Your task to perform on an android device: toggle data saver in the chrome app Image 0: 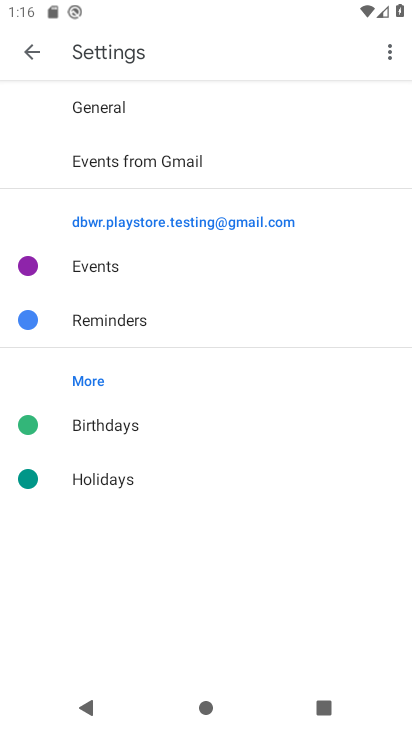
Step 0: press home button
Your task to perform on an android device: toggle data saver in the chrome app Image 1: 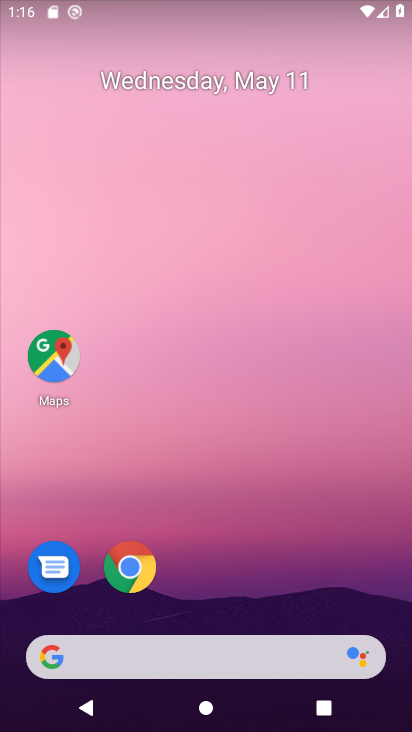
Step 1: click (112, 570)
Your task to perform on an android device: toggle data saver in the chrome app Image 2: 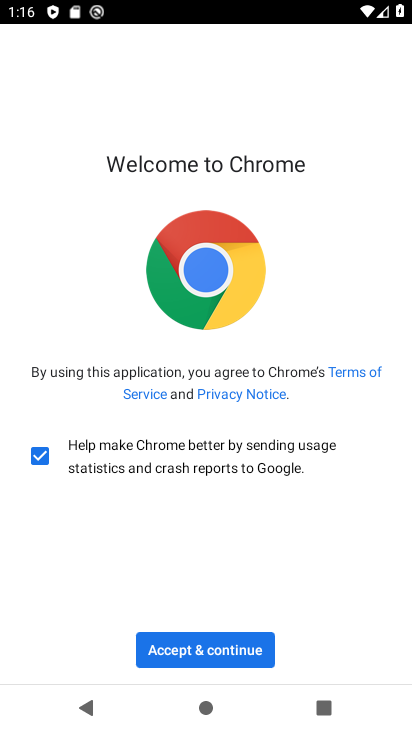
Step 2: click (223, 643)
Your task to perform on an android device: toggle data saver in the chrome app Image 3: 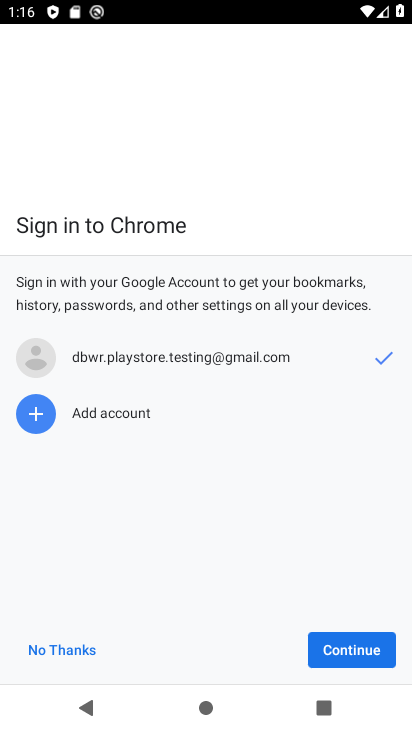
Step 3: click (339, 650)
Your task to perform on an android device: toggle data saver in the chrome app Image 4: 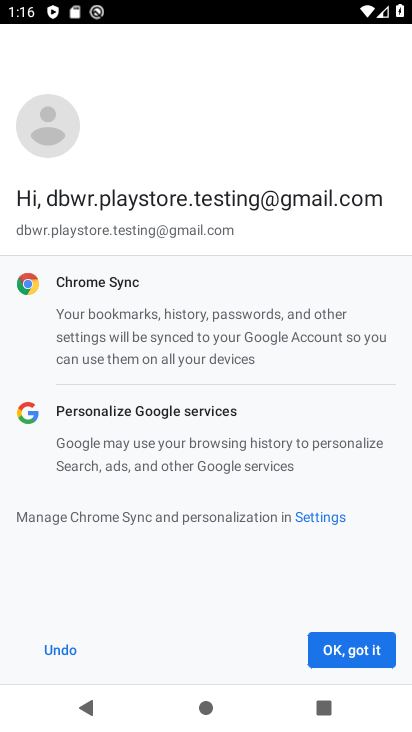
Step 4: click (342, 650)
Your task to perform on an android device: toggle data saver in the chrome app Image 5: 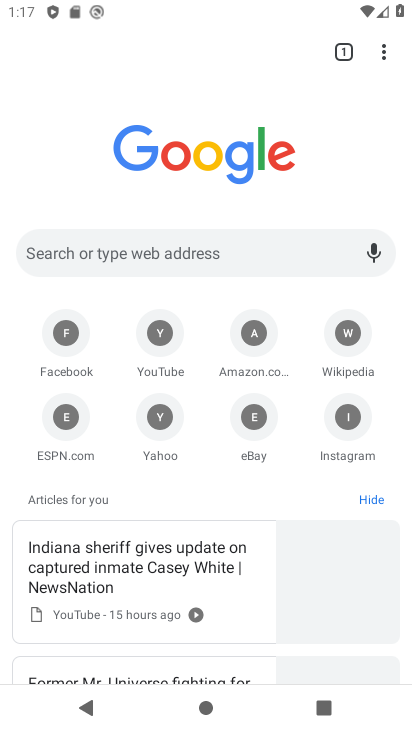
Step 5: click (383, 52)
Your task to perform on an android device: toggle data saver in the chrome app Image 6: 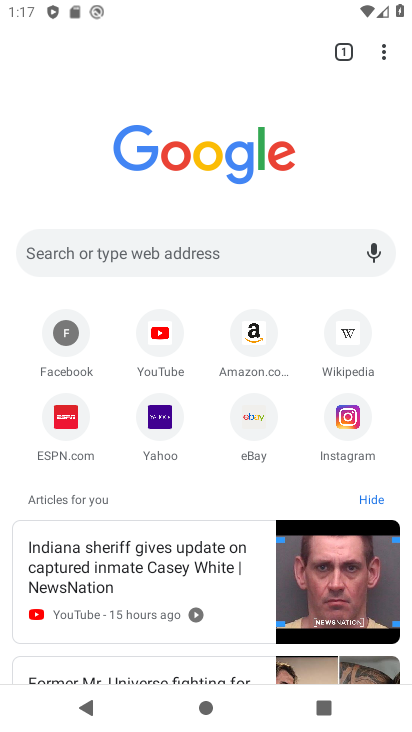
Step 6: drag from (383, 53) to (188, 438)
Your task to perform on an android device: toggle data saver in the chrome app Image 7: 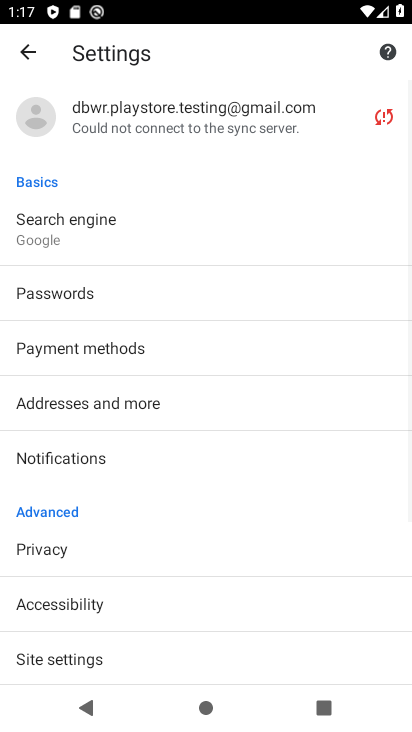
Step 7: drag from (146, 589) to (128, 69)
Your task to perform on an android device: toggle data saver in the chrome app Image 8: 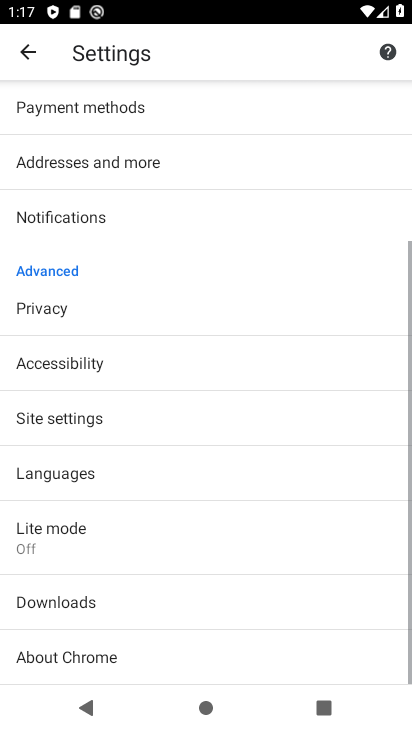
Step 8: click (65, 553)
Your task to perform on an android device: toggle data saver in the chrome app Image 9: 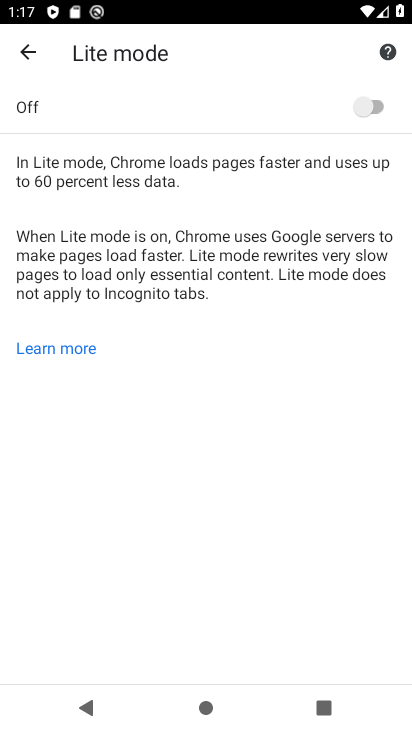
Step 9: click (352, 109)
Your task to perform on an android device: toggle data saver in the chrome app Image 10: 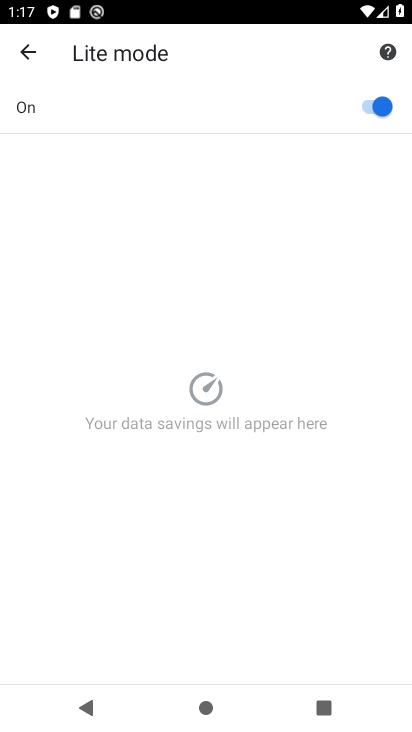
Step 10: task complete